Your task to perform on an android device: Toggle the flashlight Image 0: 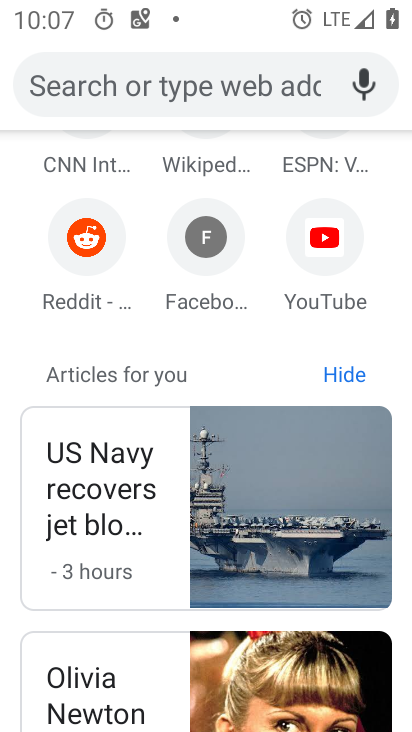
Step 0: press home button
Your task to perform on an android device: Toggle the flashlight Image 1: 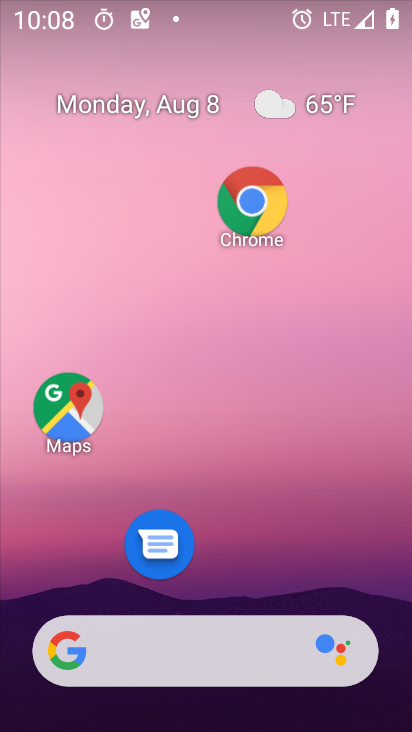
Step 1: drag from (227, 584) to (217, 2)
Your task to perform on an android device: Toggle the flashlight Image 2: 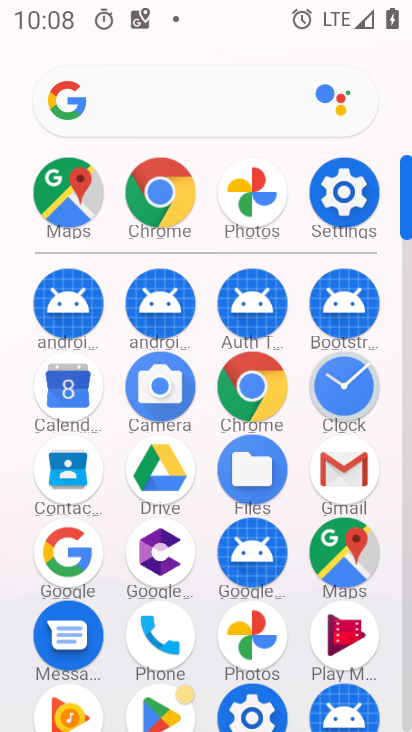
Step 2: click (341, 185)
Your task to perform on an android device: Toggle the flashlight Image 3: 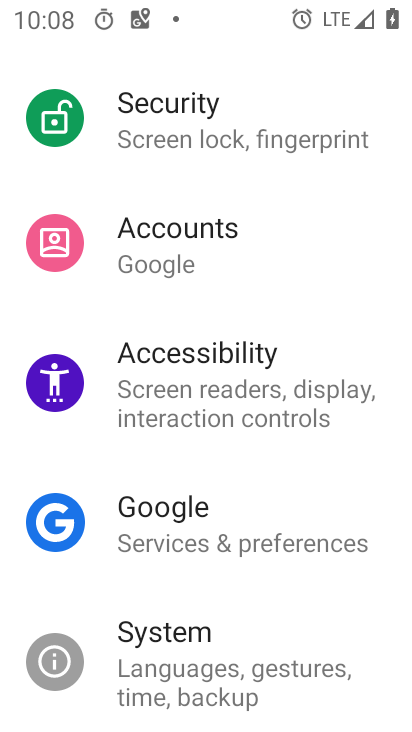
Step 3: drag from (179, 167) to (185, 586)
Your task to perform on an android device: Toggle the flashlight Image 4: 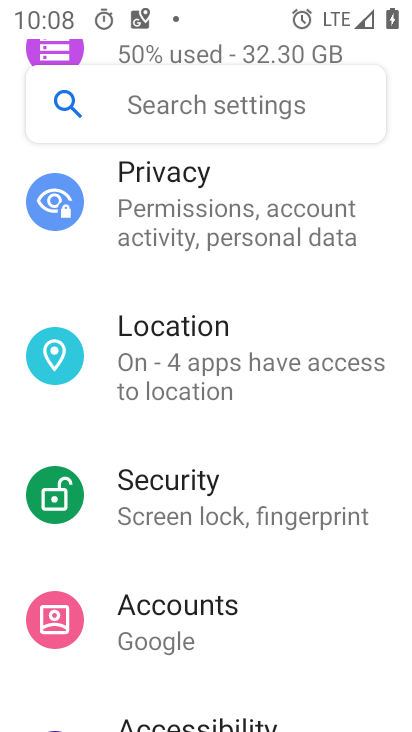
Step 4: click (146, 112)
Your task to perform on an android device: Toggle the flashlight Image 5: 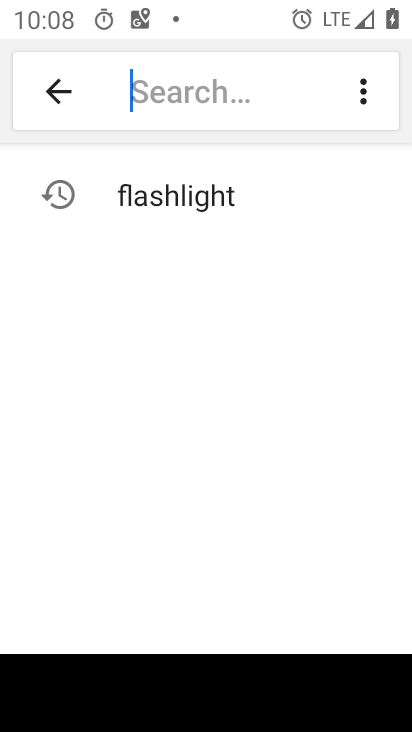
Step 5: click (170, 201)
Your task to perform on an android device: Toggle the flashlight Image 6: 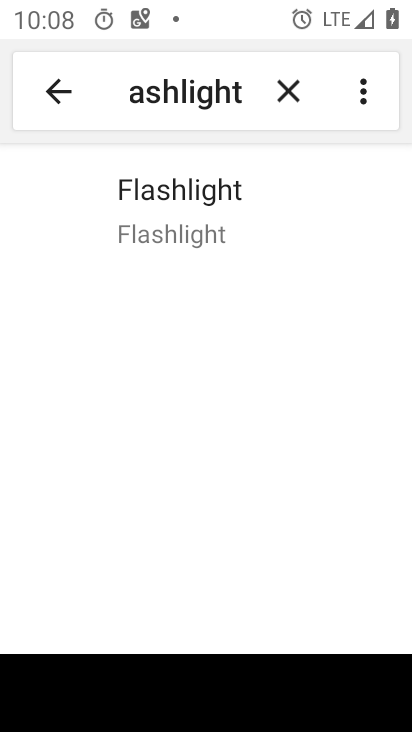
Step 6: click (170, 201)
Your task to perform on an android device: Toggle the flashlight Image 7: 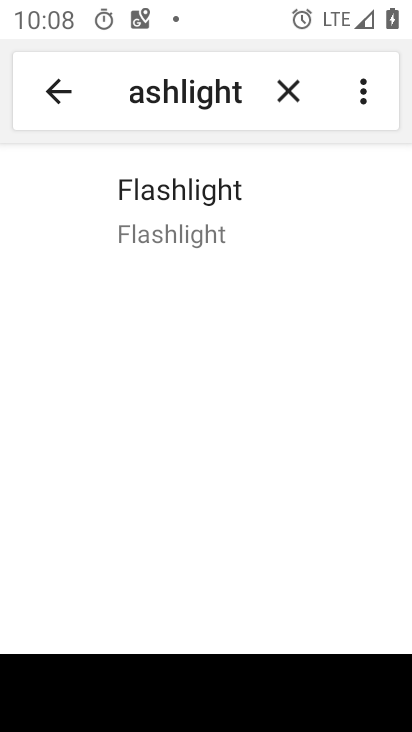
Step 7: click (177, 211)
Your task to perform on an android device: Toggle the flashlight Image 8: 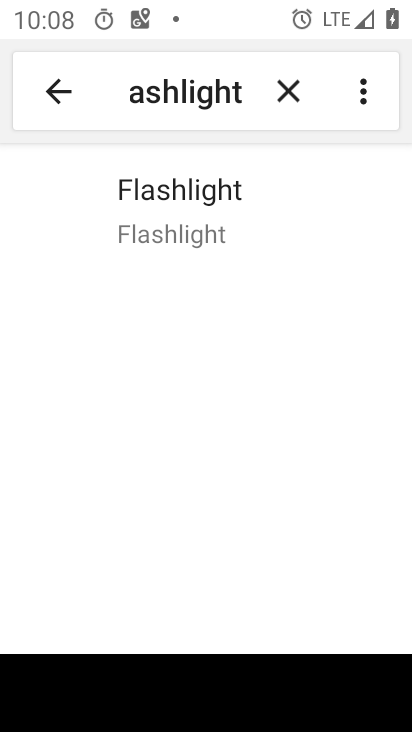
Step 8: task complete